Your task to perform on an android device: check storage Image 0: 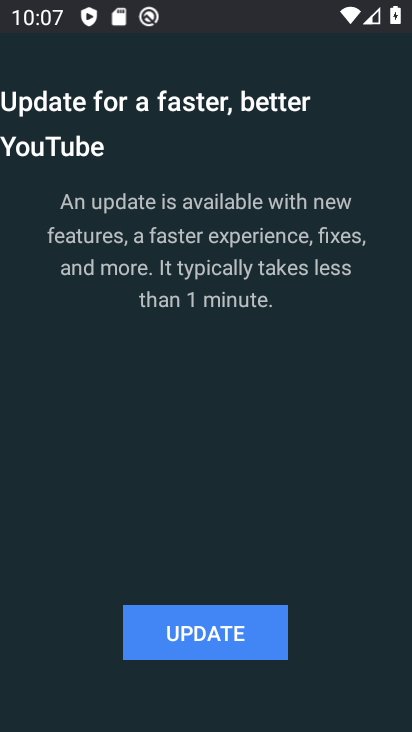
Step 0: press home button
Your task to perform on an android device: check storage Image 1: 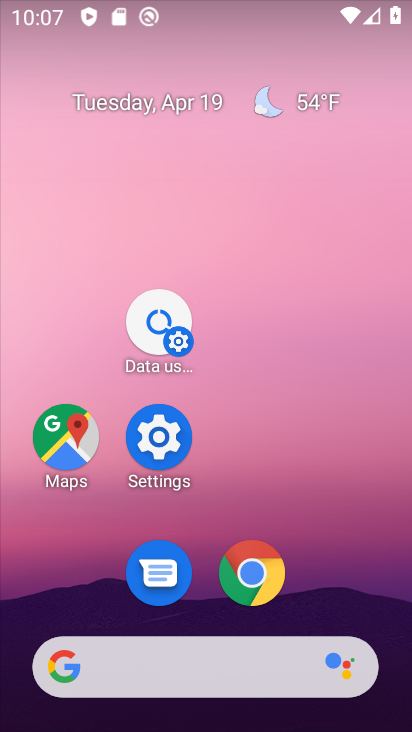
Step 1: drag from (332, 616) to (325, 4)
Your task to perform on an android device: check storage Image 2: 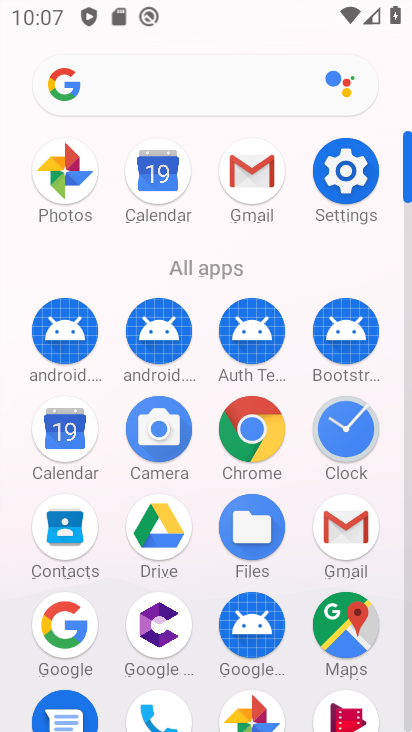
Step 2: click (346, 167)
Your task to perform on an android device: check storage Image 3: 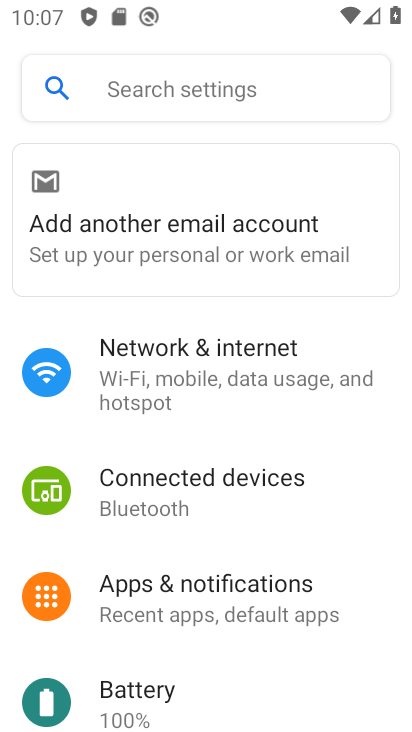
Step 3: drag from (323, 554) to (310, 141)
Your task to perform on an android device: check storage Image 4: 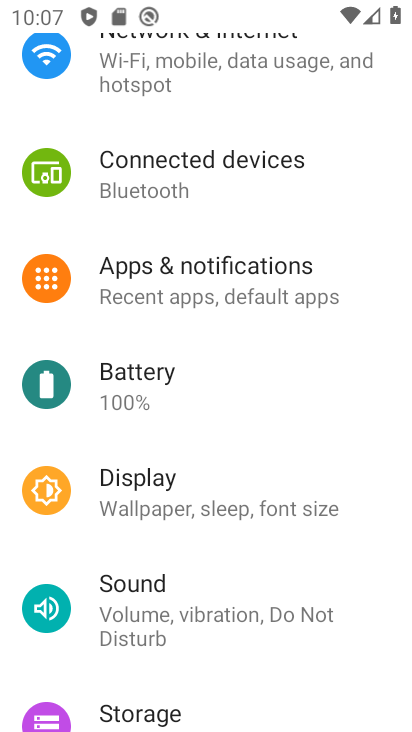
Step 4: drag from (236, 536) to (236, 202)
Your task to perform on an android device: check storage Image 5: 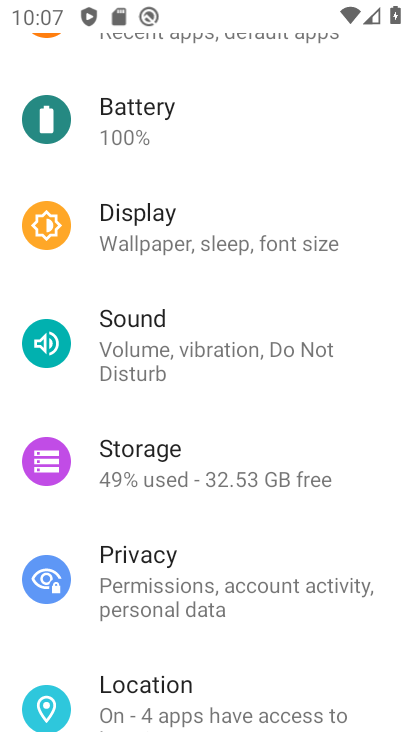
Step 5: click (105, 455)
Your task to perform on an android device: check storage Image 6: 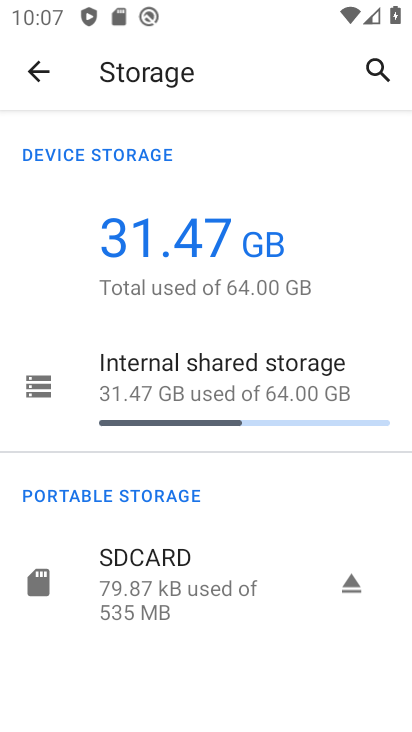
Step 6: click (125, 389)
Your task to perform on an android device: check storage Image 7: 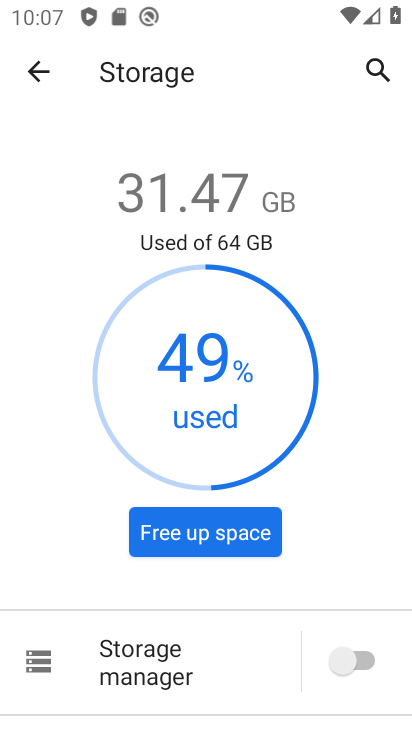
Step 7: task complete